Your task to perform on an android device: Search for flights from Helsinki to Tokyo Image 0: 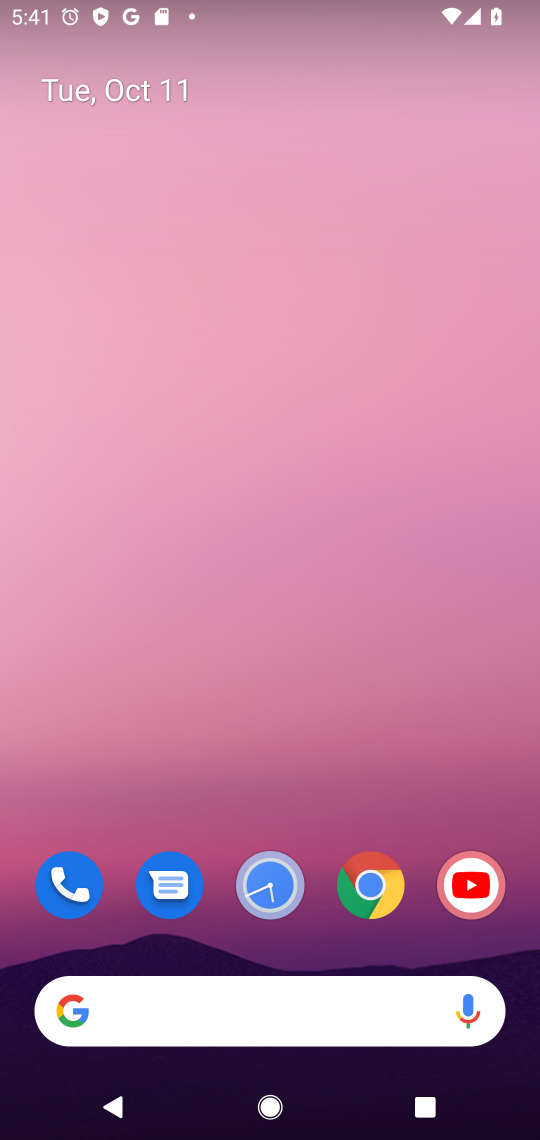
Step 0: drag from (343, 883) to (490, 12)
Your task to perform on an android device: Search for flights from Helsinki to Tokyo Image 1: 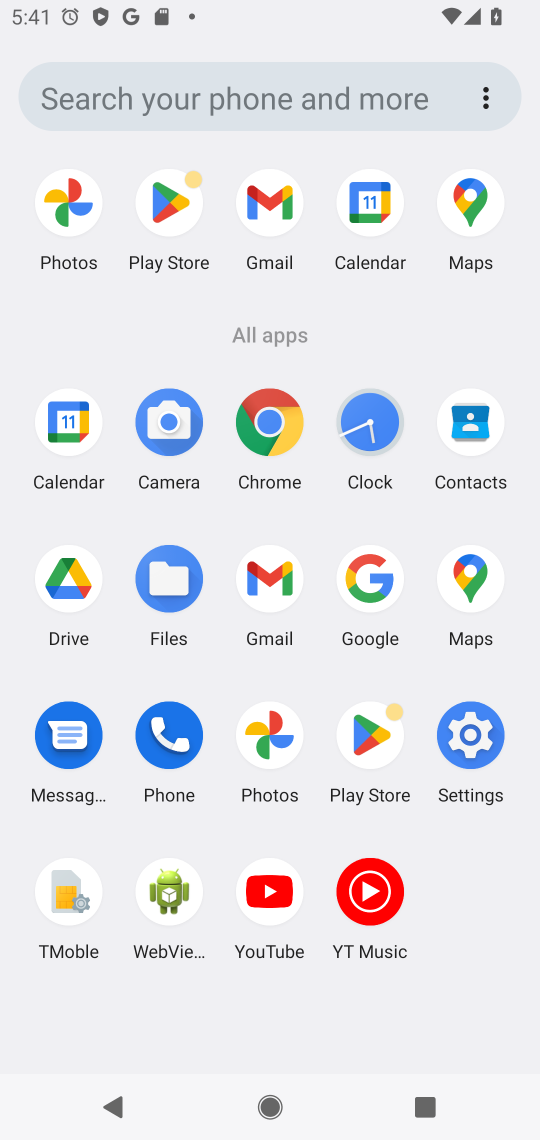
Step 1: click (270, 461)
Your task to perform on an android device: Search for flights from Helsinki to Tokyo Image 2: 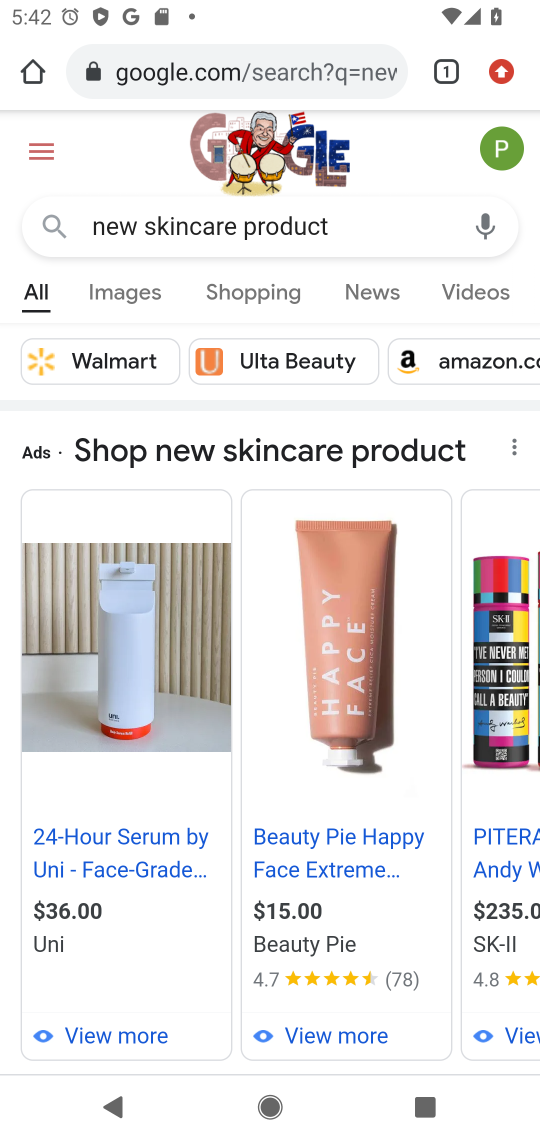
Step 2: click (235, 58)
Your task to perform on an android device: Search for flights from Helsinki to Tokyo Image 3: 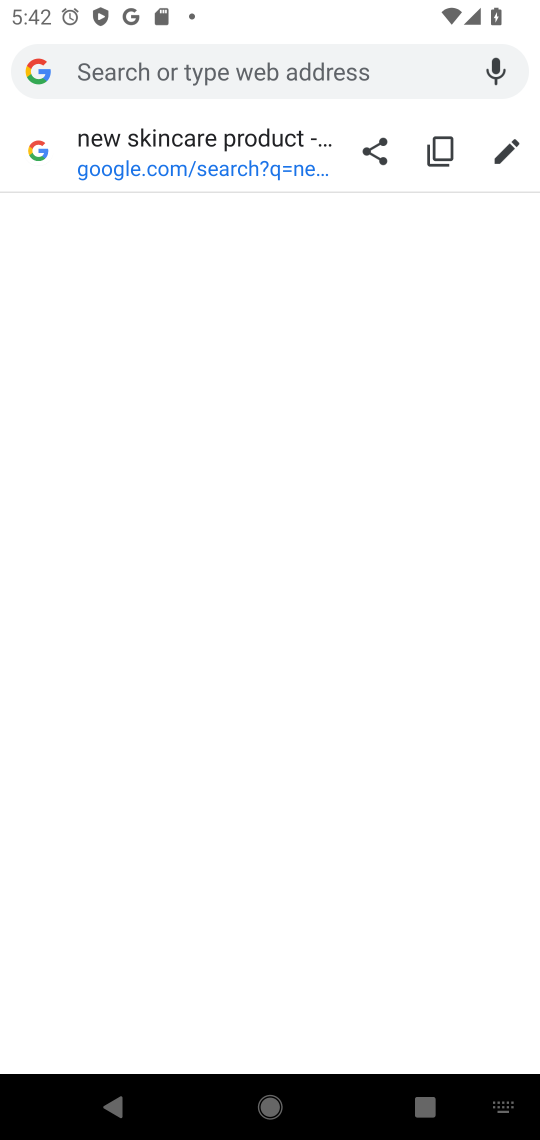
Step 3: type "flights from Helsinki to Tokyo"
Your task to perform on an android device: Search for flights from Helsinki to Tokyo Image 4: 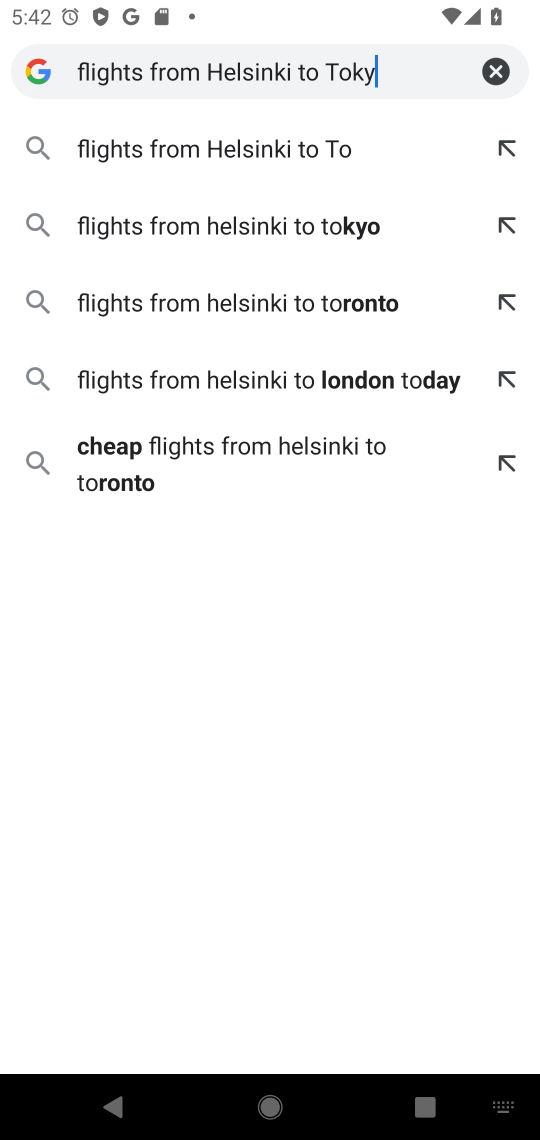
Step 4: press enter
Your task to perform on an android device: Search for flights from Helsinki to Tokyo Image 5: 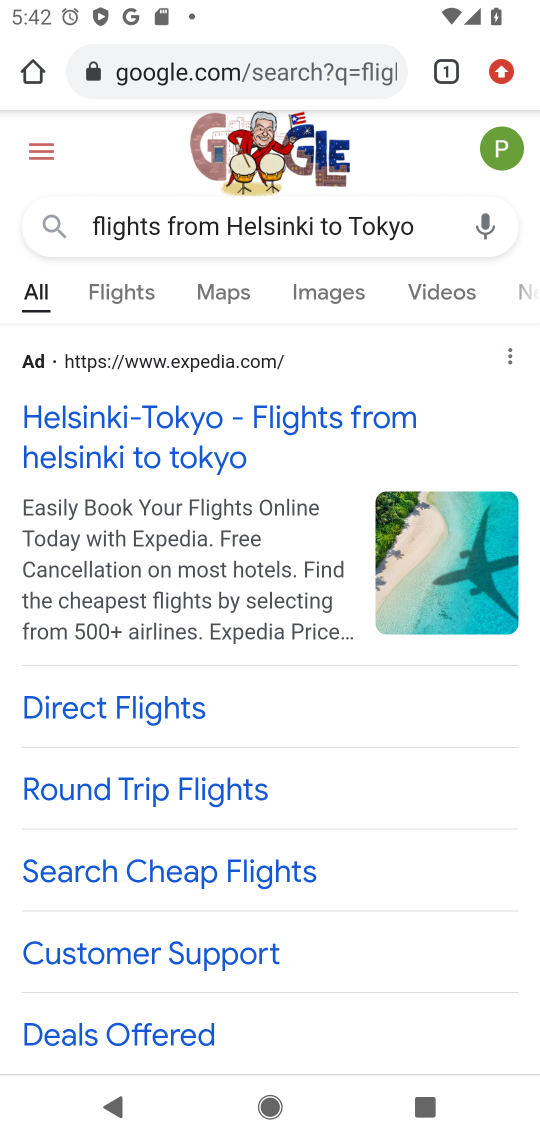
Step 5: click (38, 422)
Your task to perform on an android device: Search for flights from Helsinki to Tokyo Image 6: 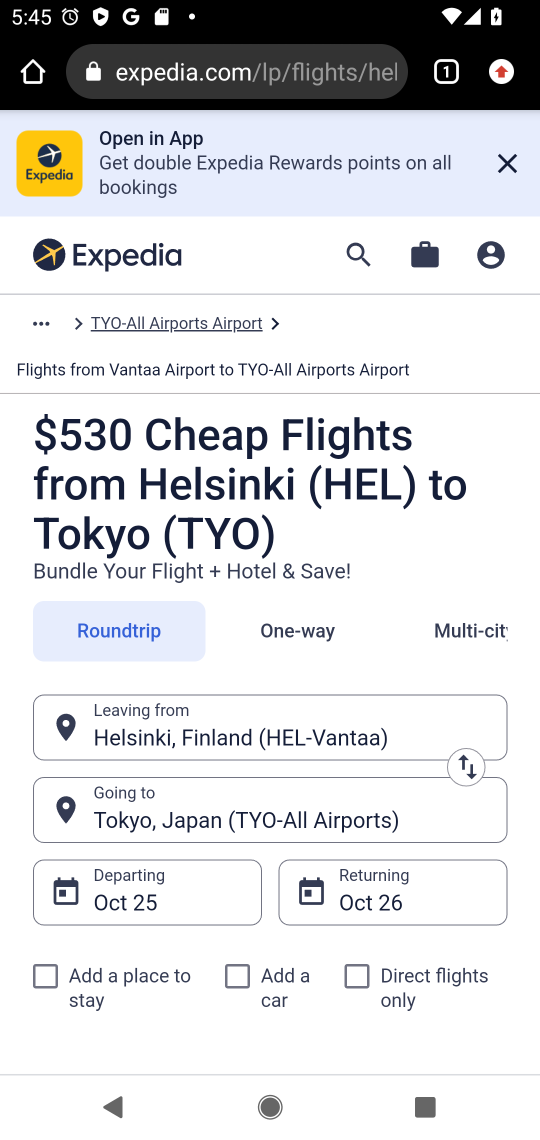
Step 6: task complete